Your task to perform on an android device: Go to Yahoo.com Image 0: 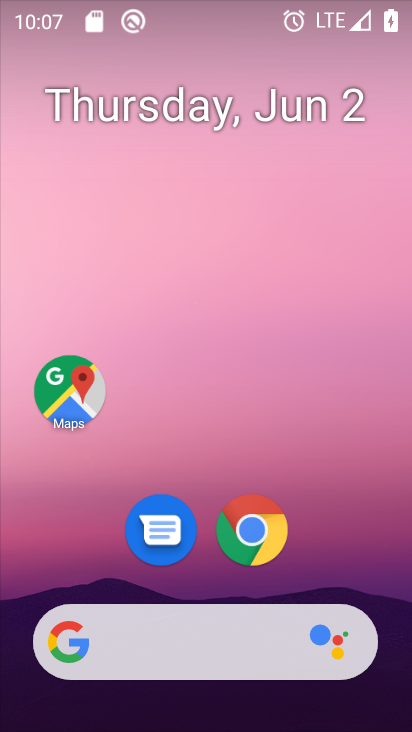
Step 0: drag from (213, 606) to (307, 160)
Your task to perform on an android device: Go to Yahoo.com Image 1: 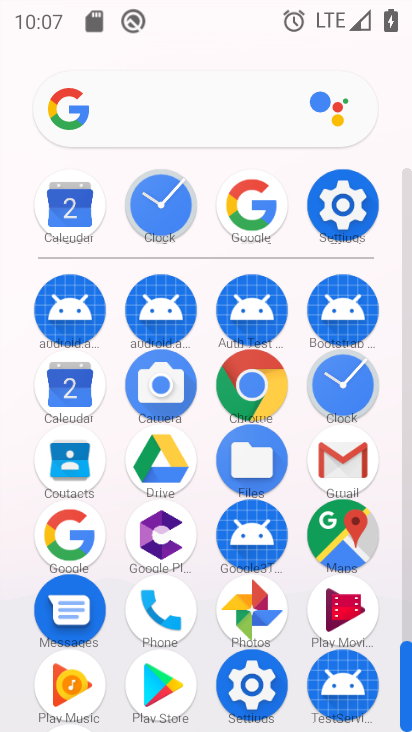
Step 1: click (258, 390)
Your task to perform on an android device: Go to Yahoo.com Image 2: 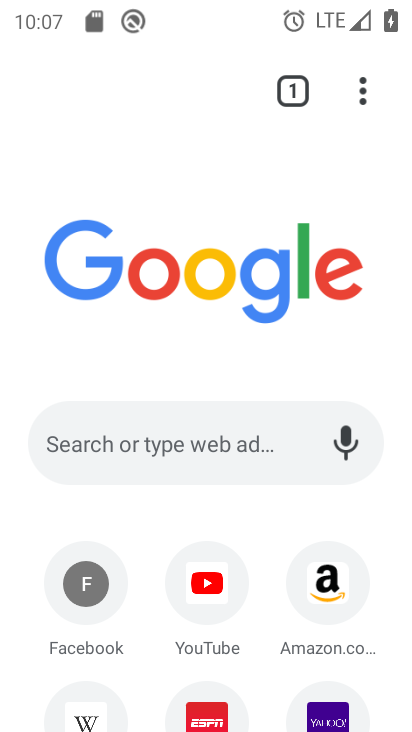
Step 2: drag from (133, 711) to (206, 302)
Your task to perform on an android device: Go to Yahoo.com Image 3: 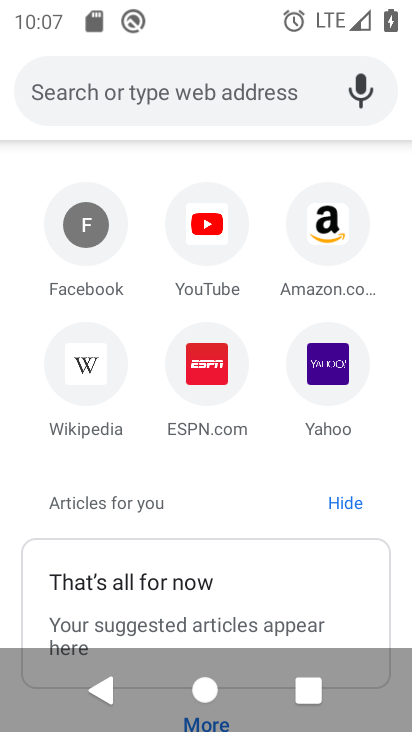
Step 3: drag from (139, 594) to (192, 237)
Your task to perform on an android device: Go to Yahoo.com Image 4: 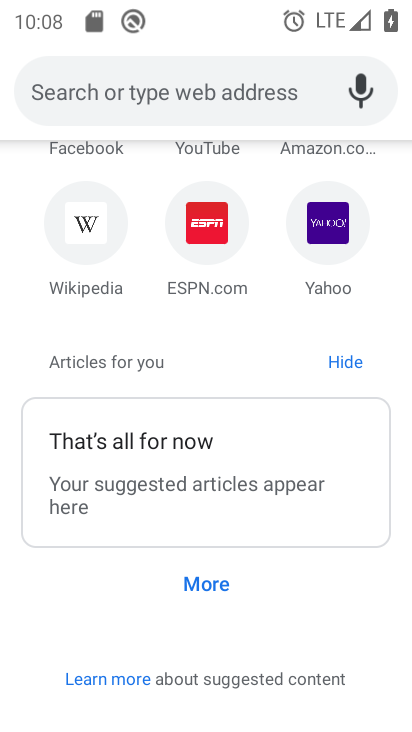
Step 4: click (324, 238)
Your task to perform on an android device: Go to Yahoo.com Image 5: 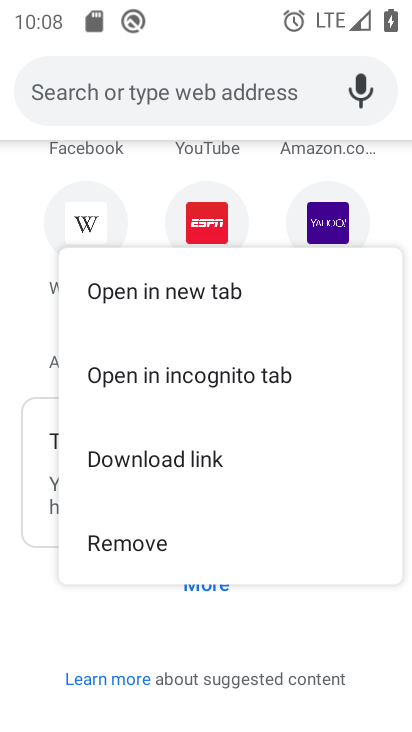
Step 5: click (330, 228)
Your task to perform on an android device: Go to Yahoo.com Image 6: 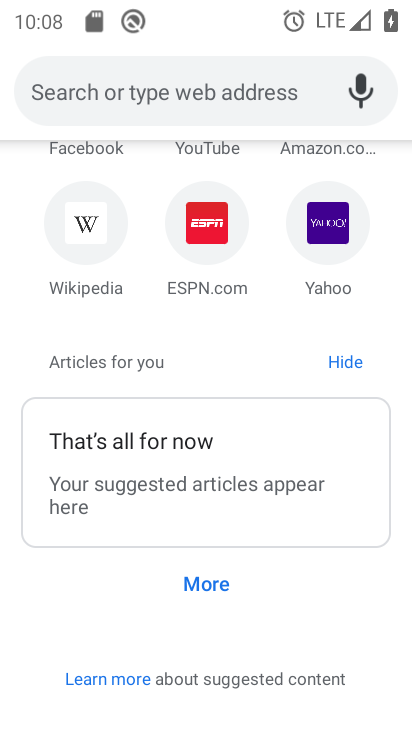
Step 6: click (330, 226)
Your task to perform on an android device: Go to Yahoo.com Image 7: 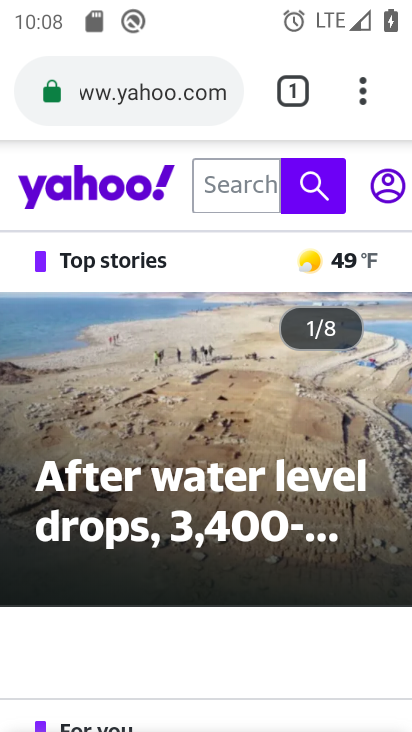
Step 7: task complete